Your task to perform on an android device: Go to eBay Image 0: 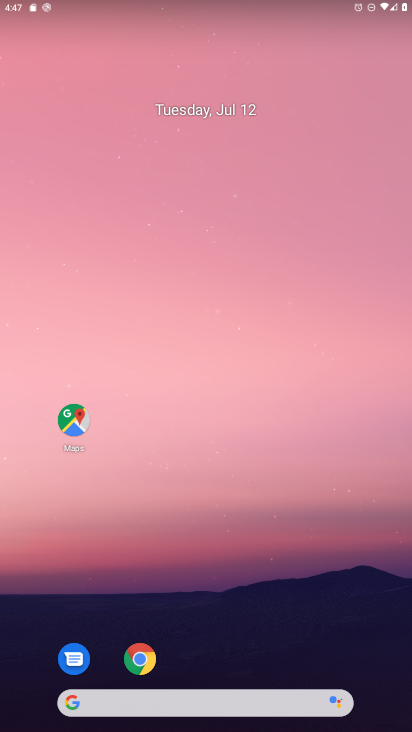
Step 0: click (142, 658)
Your task to perform on an android device: Go to eBay Image 1: 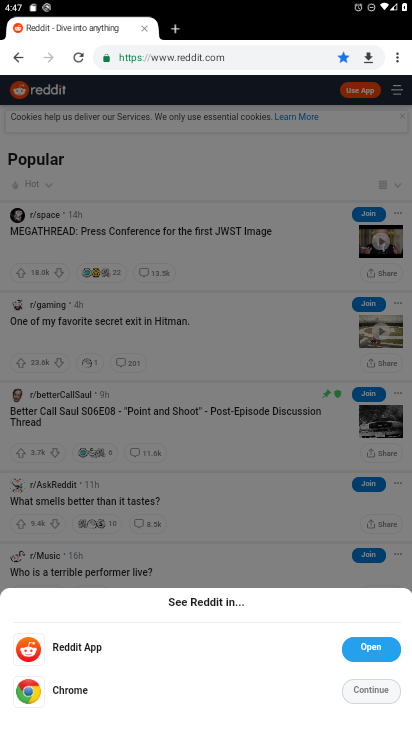
Step 1: press back button
Your task to perform on an android device: Go to eBay Image 2: 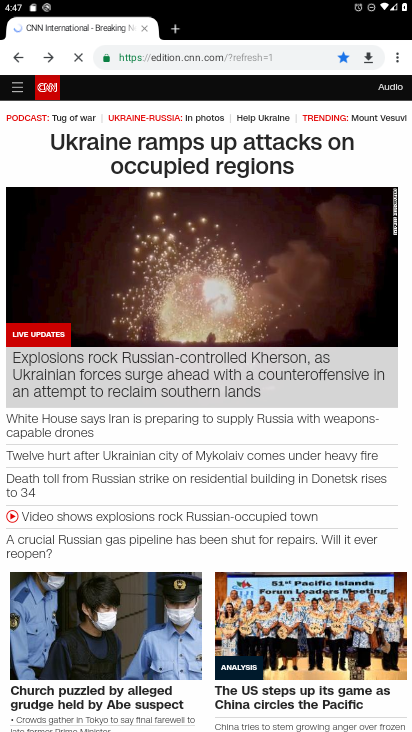
Step 2: press back button
Your task to perform on an android device: Go to eBay Image 3: 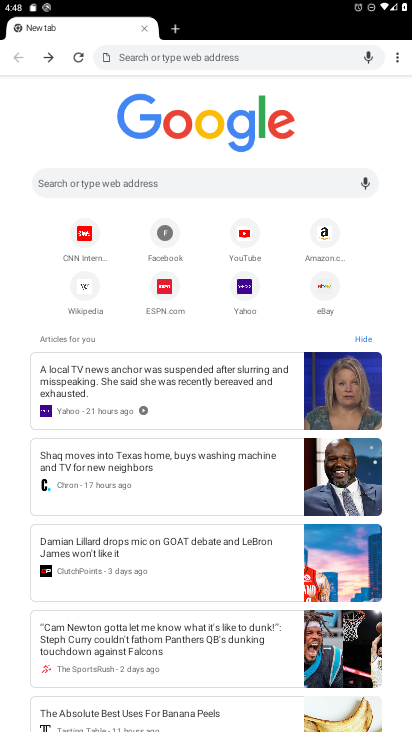
Step 3: click (321, 286)
Your task to perform on an android device: Go to eBay Image 4: 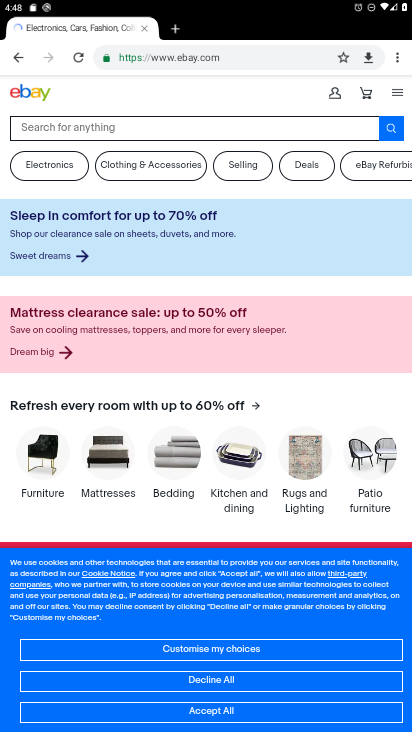
Step 4: task complete